Your task to perform on an android device: add a contact Image 0: 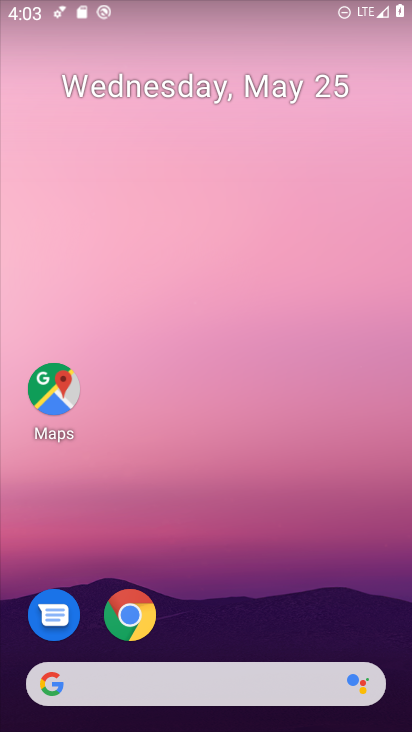
Step 0: drag from (200, 604) to (259, 26)
Your task to perform on an android device: add a contact Image 1: 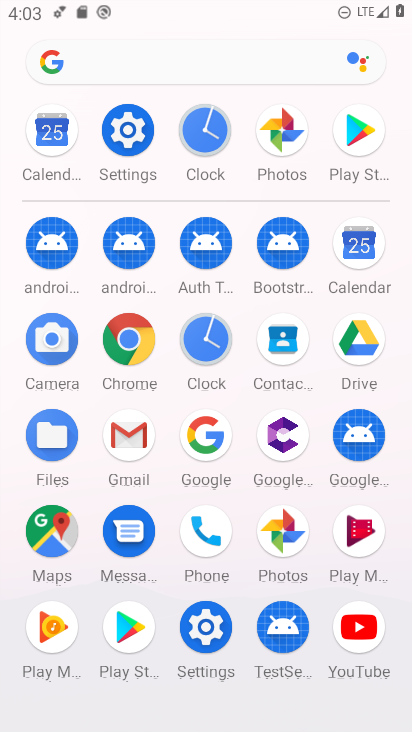
Step 1: click (279, 350)
Your task to perform on an android device: add a contact Image 2: 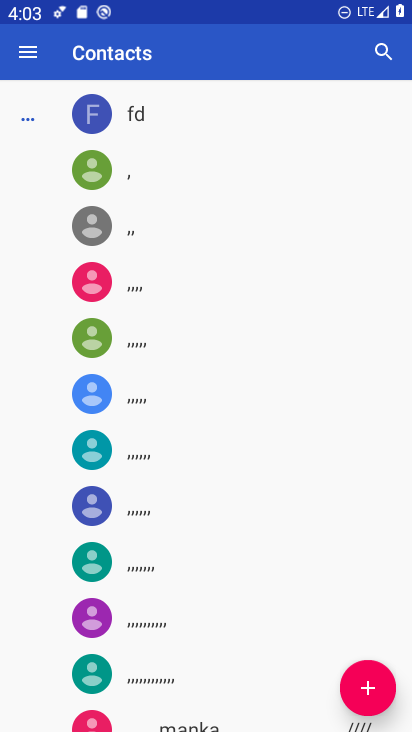
Step 2: click (369, 680)
Your task to perform on an android device: add a contact Image 3: 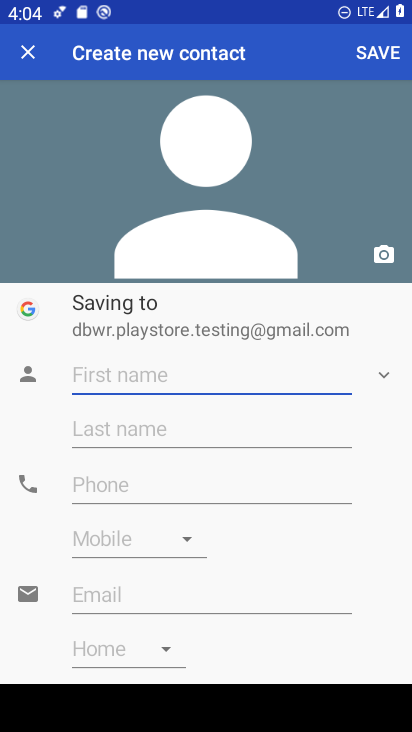
Step 3: type "Prabhakaran"
Your task to perform on an android device: add a contact Image 4: 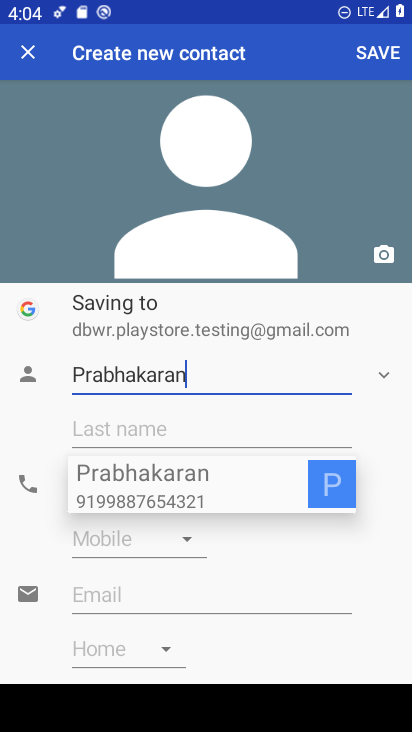
Step 4: type " Reddy"
Your task to perform on an android device: add a contact Image 5: 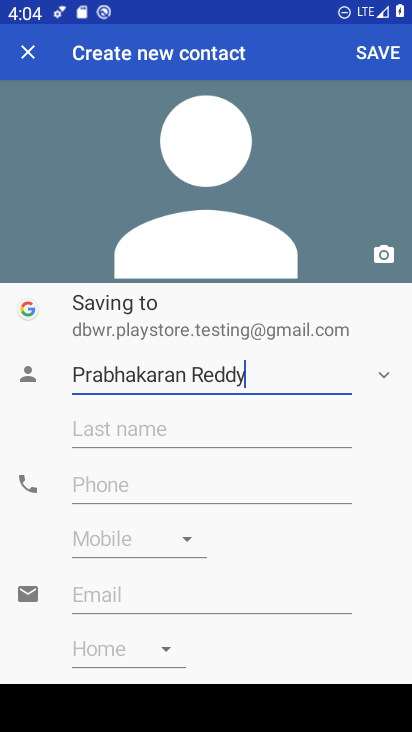
Step 5: click (220, 490)
Your task to perform on an android device: add a contact Image 6: 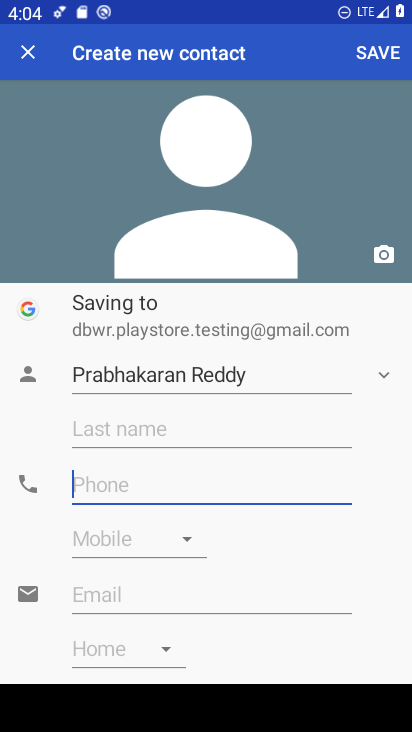
Step 6: type "011222987654"
Your task to perform on an android device: add a contact Image 7: 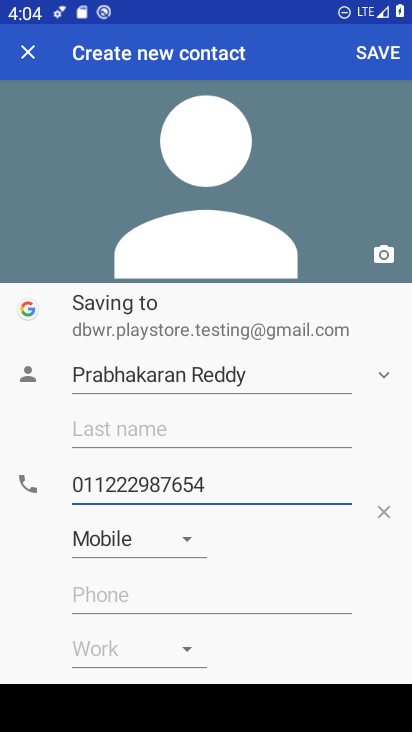
Step 7: click (388, 46)
Your task to perform on an android device: add a contact Image 8: 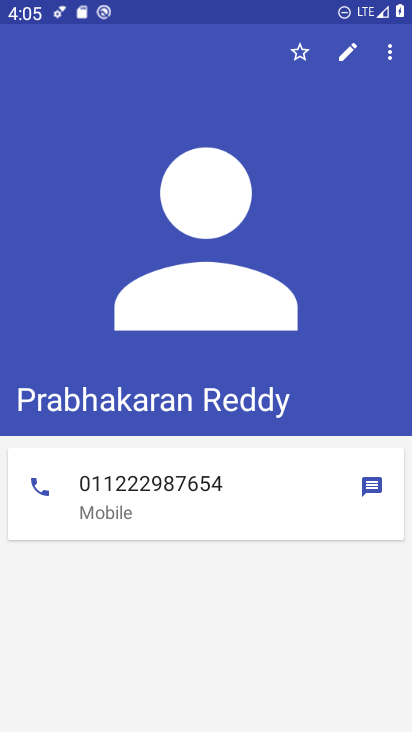
Step 8: task complete